Your task to perform on an android device: turn smart compose on in the gmail app Image 0: 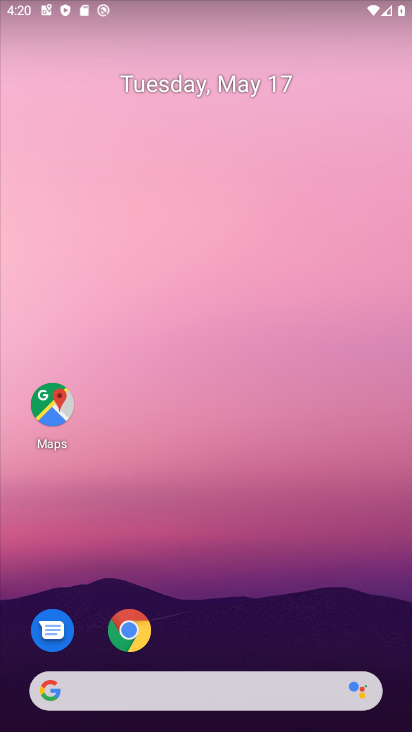
Step 0: drag from (222, 697) to (224, 361)
Your task to perform on an android device: turn smart compose on in the gmail app Image 1: 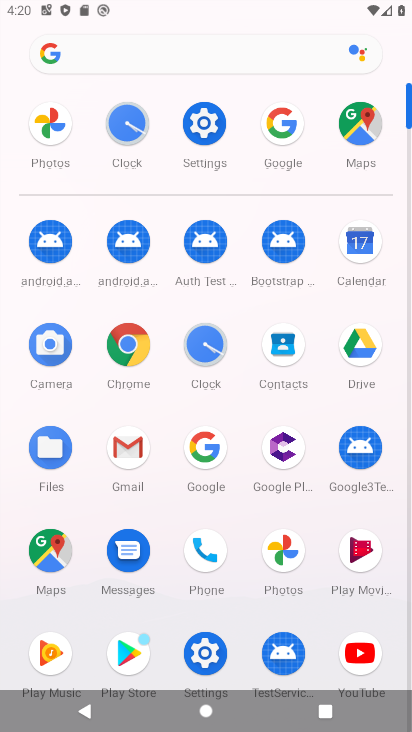
Step 1: click (122, 453)
Your task to perform on an android device: turn smart compose on in the gmail app Image 2: 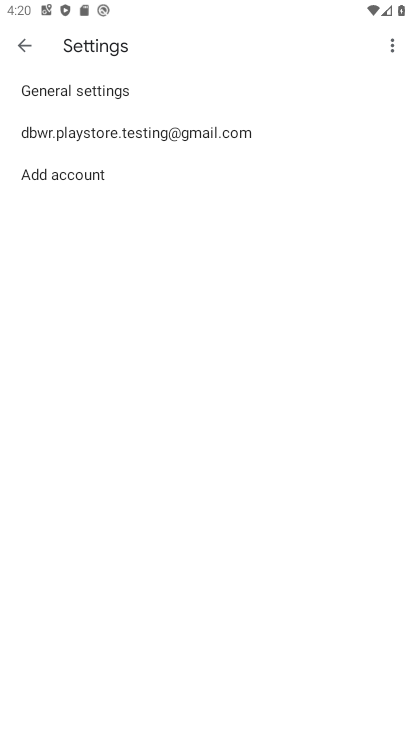
Step 2: click (91, 130)
Your task to perform on an android device: turn smart compose on in the gmail app Image 3: 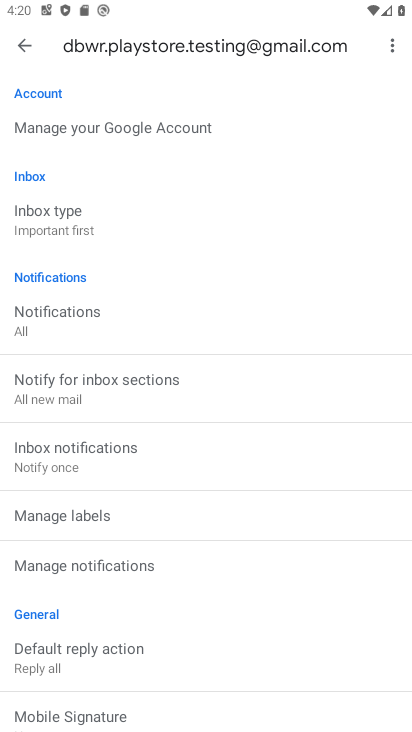
Step 3: task complete